Your task to perform on an android device: Open calendar and show me the fourth week of next month Image 0: 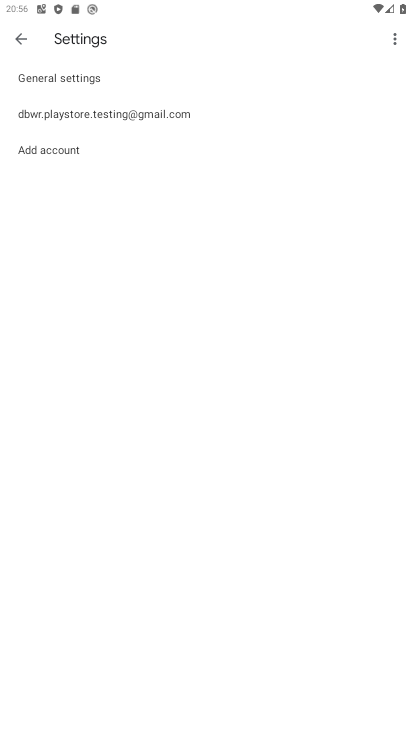
Step 0: press back button
Your task to perform on an android device: Open calendar and show me the fourth week of next month Image 1: 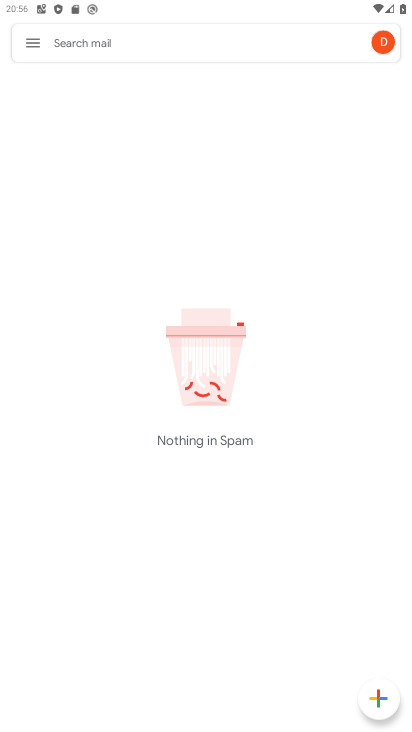
Step 1: press back button
Your task to perform on an android device: Open calendar and show me the fourth week of next month Image 2: 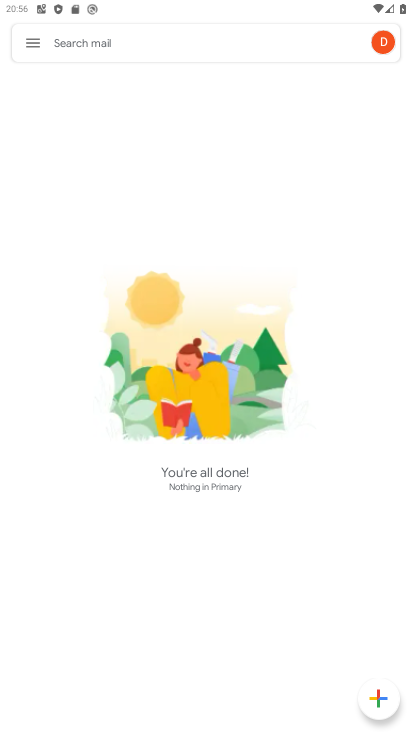
Step 2: press back button
Your task to perform on an android device: Open calendar and show me the fourth week of next month Image 3: 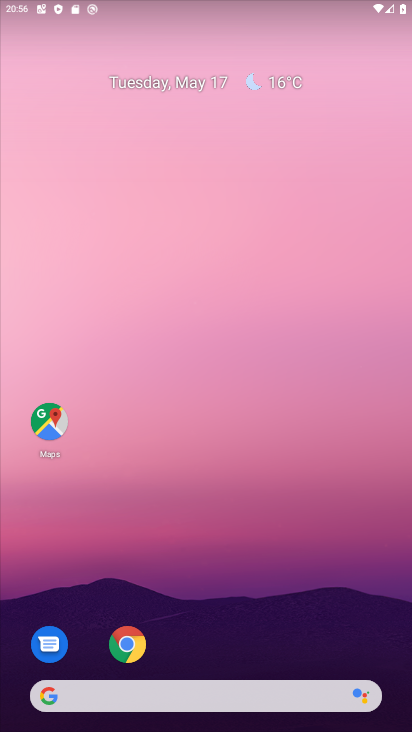
Step 3: drag from (280, 535) to (370, 32)
Your task to perform on an android device: Open calendar and show me the fourth week of next month Image 4: 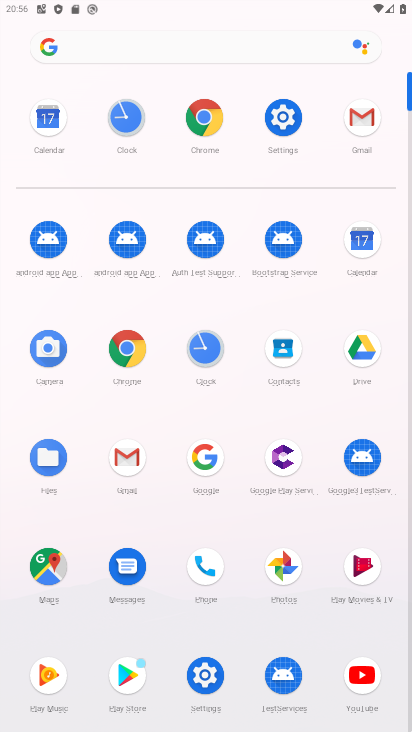
Step 4: click (364, 248)
Your task to perform on an android device: Open calendar and show me the fourth week of next month Image 5: 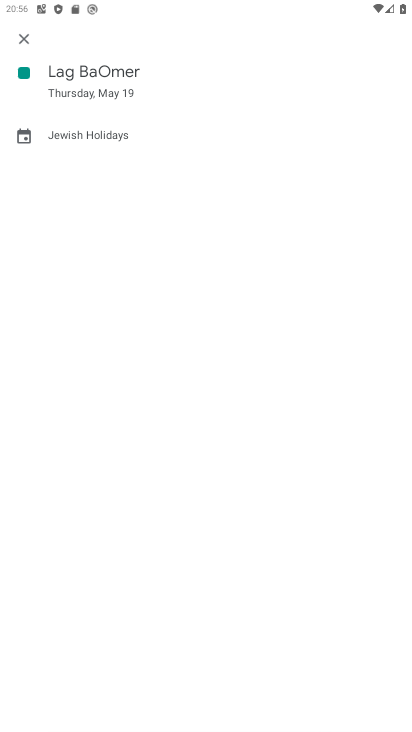
Step 5: click (35, 41)
Your task to perform on an android device: Open calendar and show me the fourth week of next month Image 6: 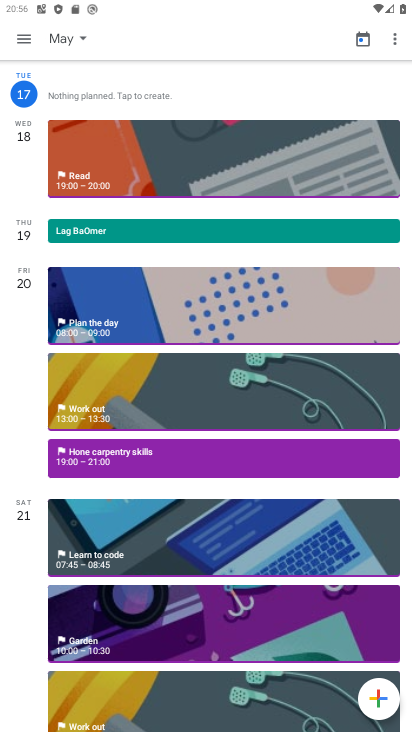
Step 6: click (83, 36)
Your task to perform on an android device: Open calendar and show me the fourth week of next month Image 7: 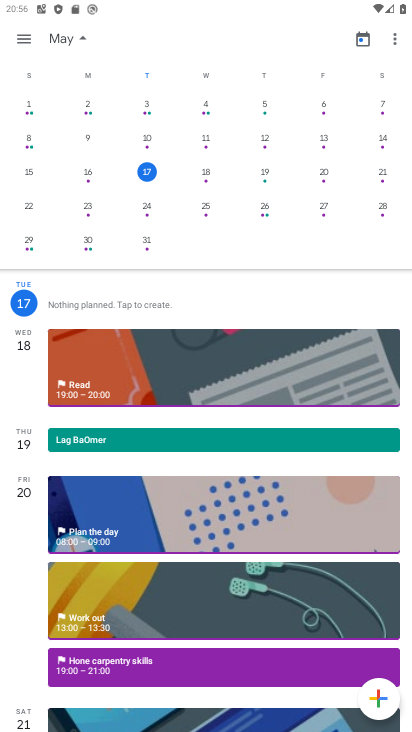
Step 7: drag from (377, 190) to (0, 128)
Your task to perform on an android device: Open calendar and show me the fourth week of next month Image 8: 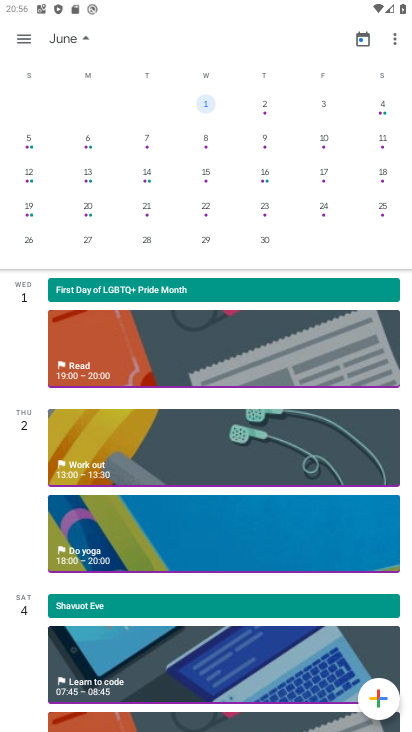
Step 8: click (88, 206)
Your task to perform on an android device: Open calendar and show me the fourth week of next month Image 9: 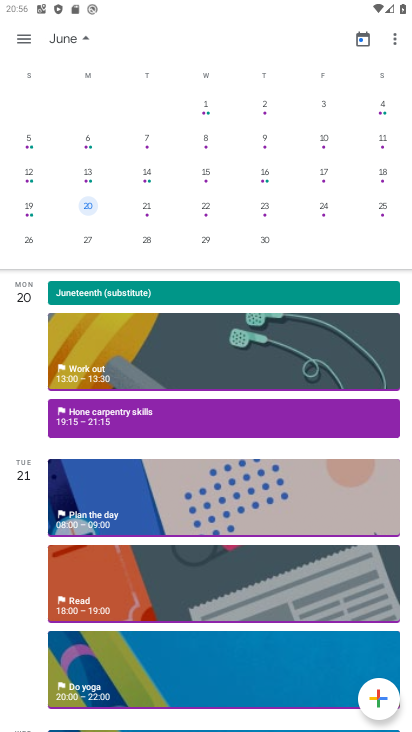
Step 9: task complete